Your task to perform on an android device: set the stopwatch Image 0: 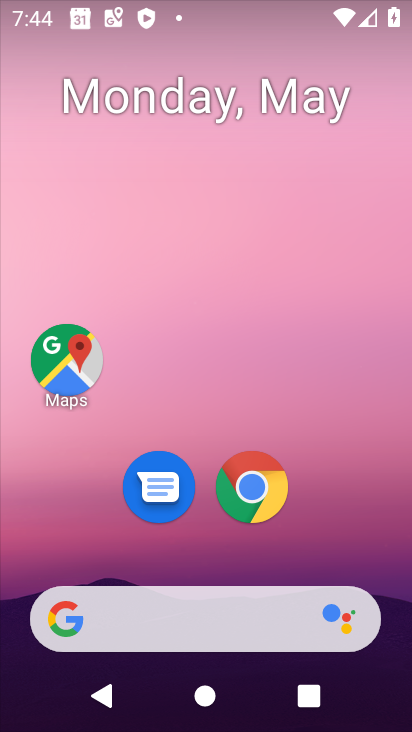
Step 0: drag from (262, 653) to (266, 181)
Your task to perform on an android device: set the stopwatch Image 1: 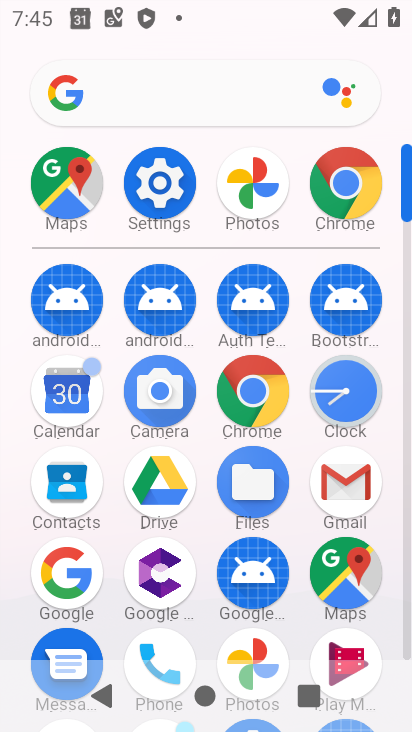
Step 1: click (339, 402)
Your task to perform on an android device: set the stopwatch Image 2: 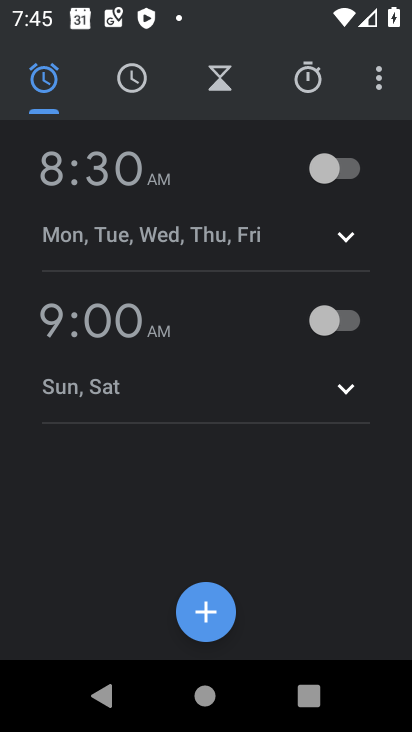
Step 2: click (302, 83)
Your task to perform on an android device: set the stopwatch Image 3: 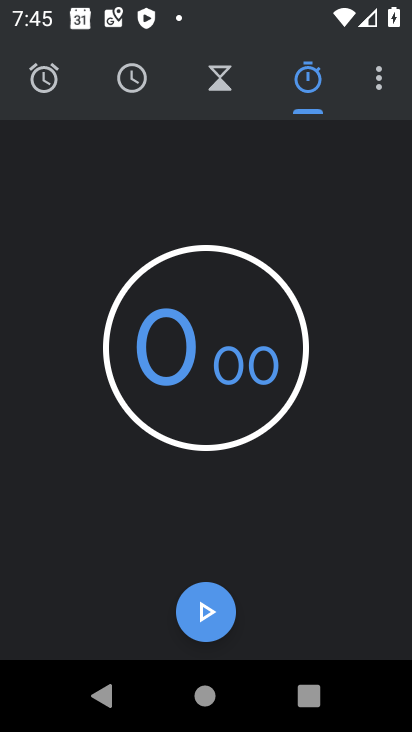
Step 3: click (200, 614)
Your task to perform on an android device: set the stopwatch Image 4: 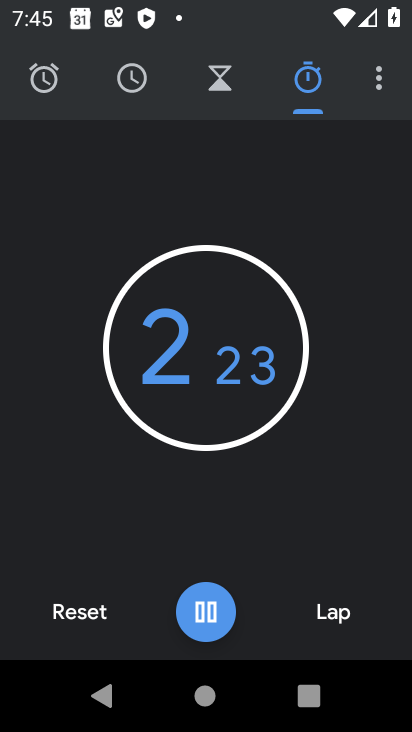
Step 4: task complete